Your task to perform on an android device: read, delete, or share a saved page in the chrome app Image 0: 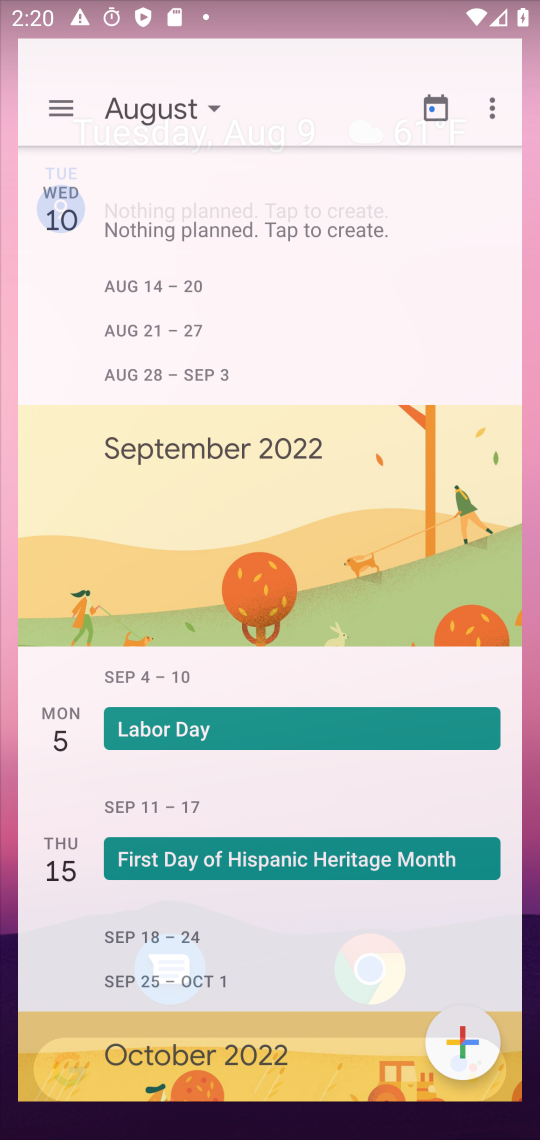
Step 0: press home button
Your task to perform on an android device: read, delete, or share a saved page in the chrome app Image 1: 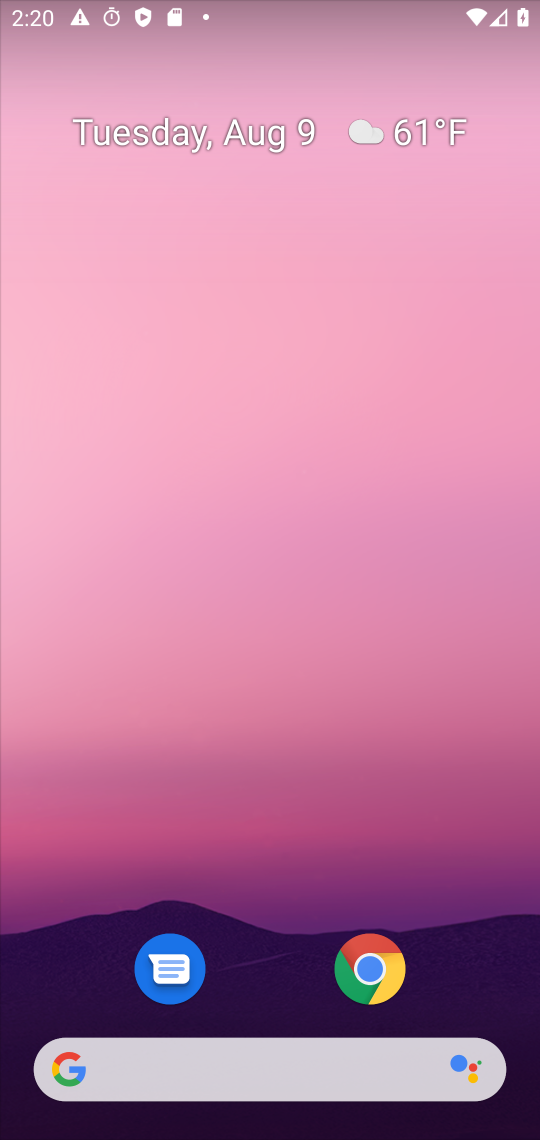
Step 1: drag from (300, 988) to (414, 310)
Your task to perform on an android device: read, delete, or share a saved page in the chrome app Image 2: 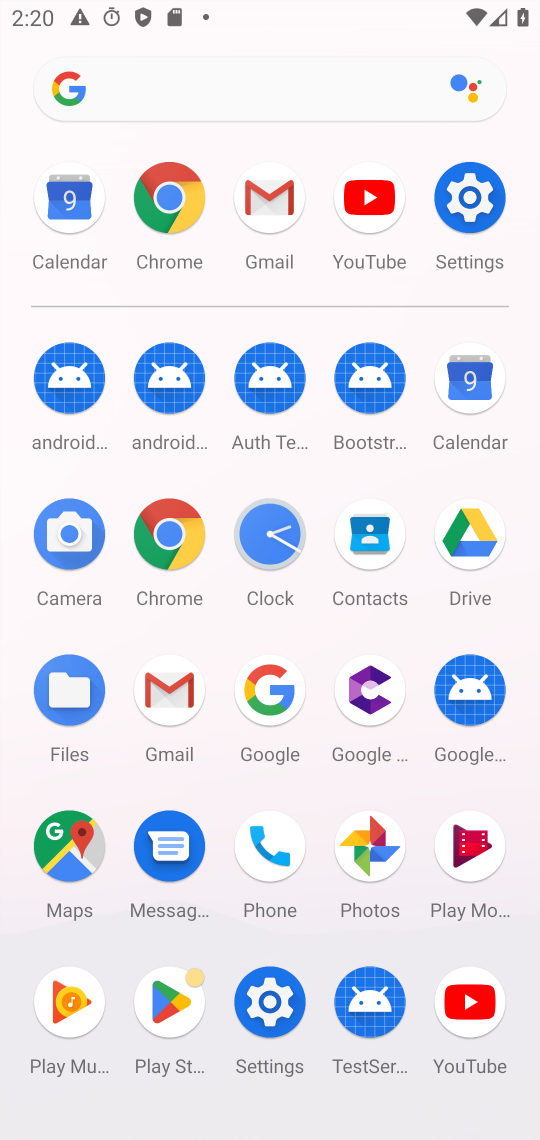
Step 2: click (163, 198)
Your task to perform on an android device: read, delete, or share a saved page in the chrome app Image 3: 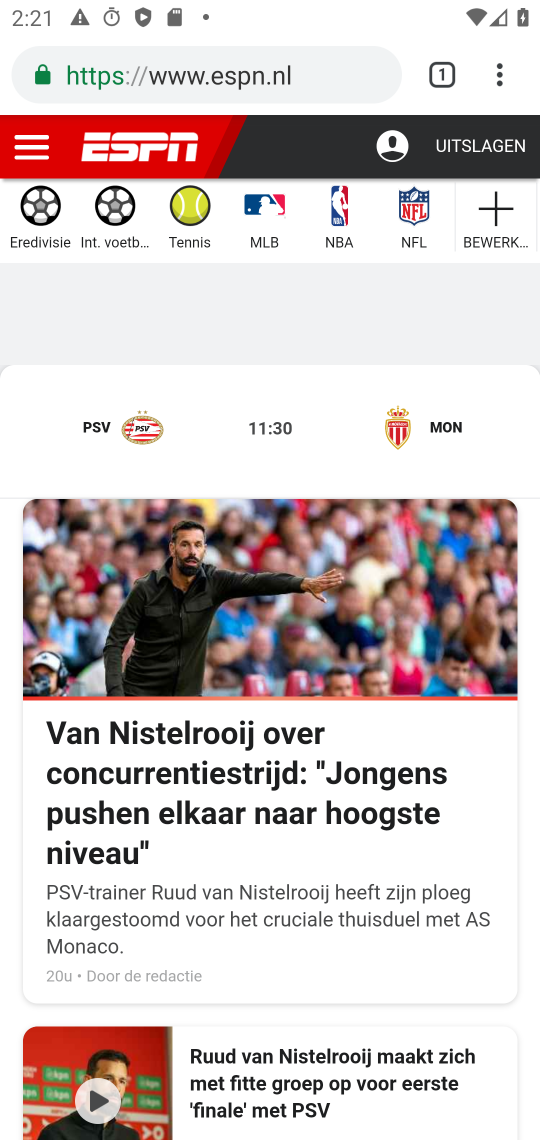
Step 3: click (500, 95)
Your task to perform on an android device: read, delete, or share a saved page in the chrome app Image 4: 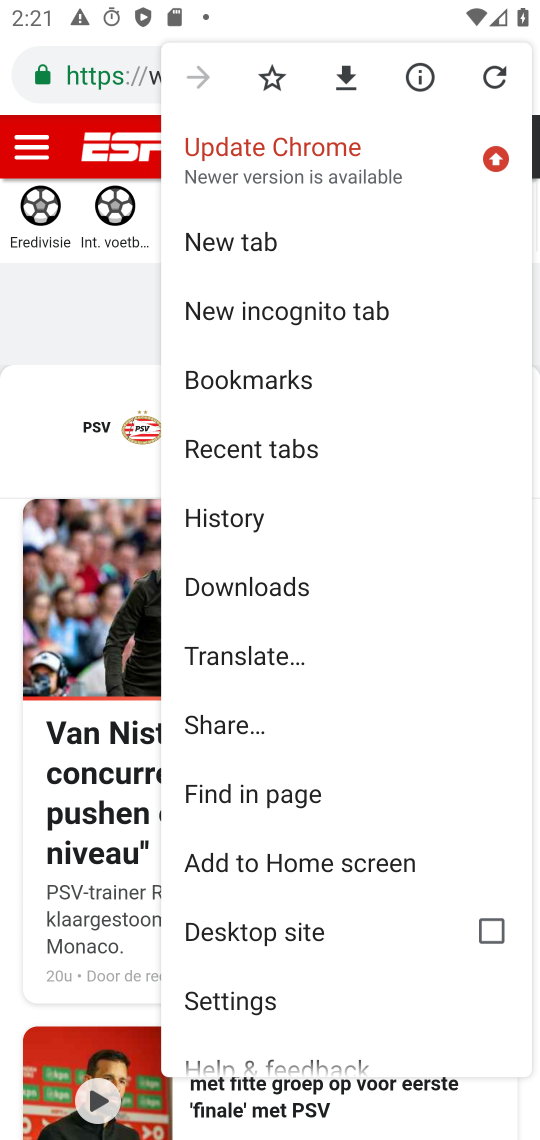
Step 4: click (257, 727)
Your task to perform on an android device: read, delete, or share a saved page in the chrome app Image 5: 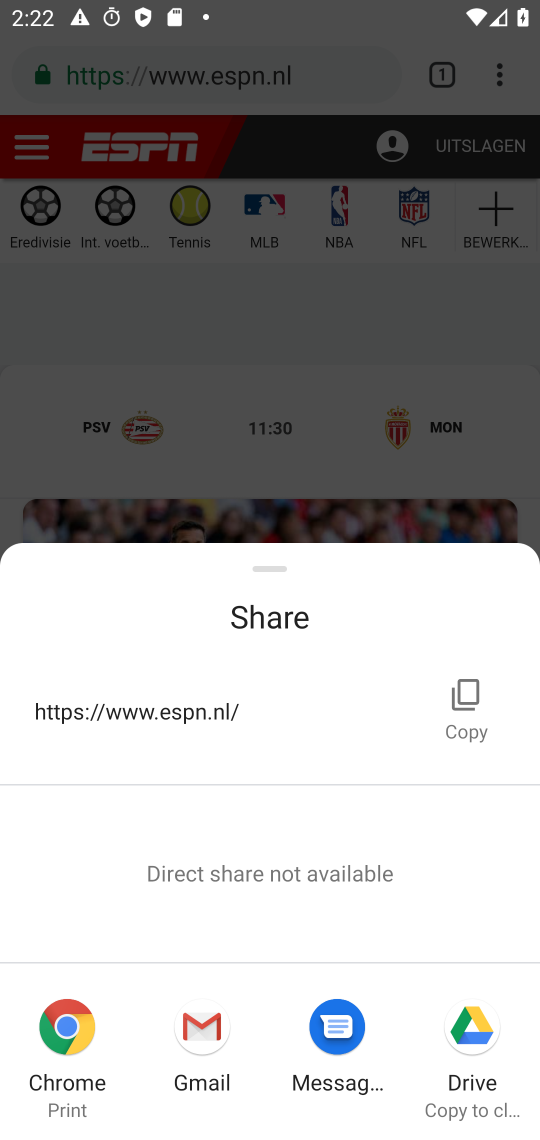
Step 5: task complete